Your task to perform on an android device: Open location settings Image 0: 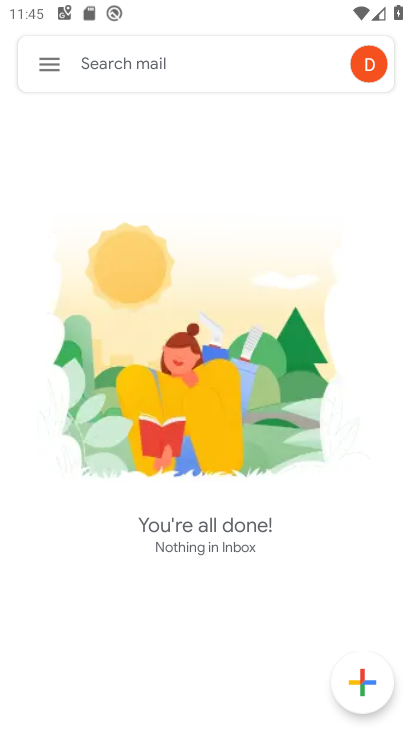
Step 0: press home button
Your task to perform on an android device: Open location settings Image 1: 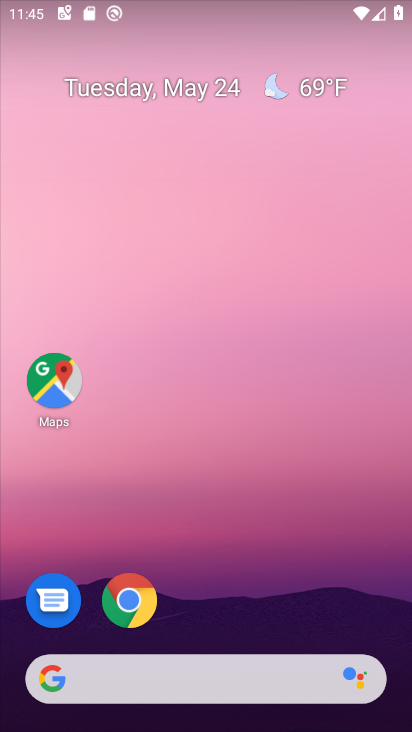
Step 1: drag from (370, 603) to (374, 220)
Your task to perform on an android device: Open location settings Image 2: 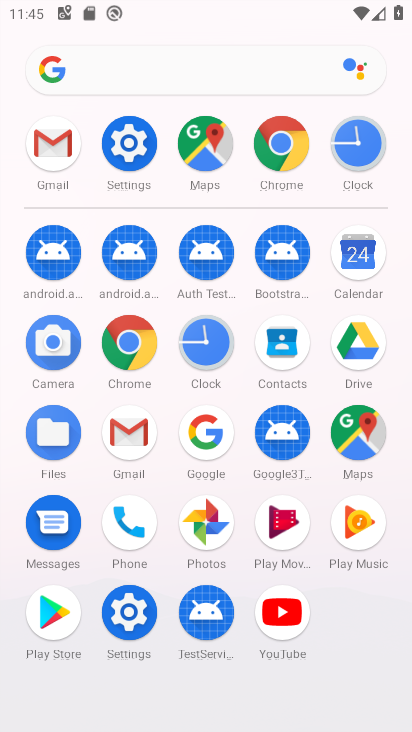
Step 2: click (134, 626)
Your task to perform on an android device: Open location settings Image 3: 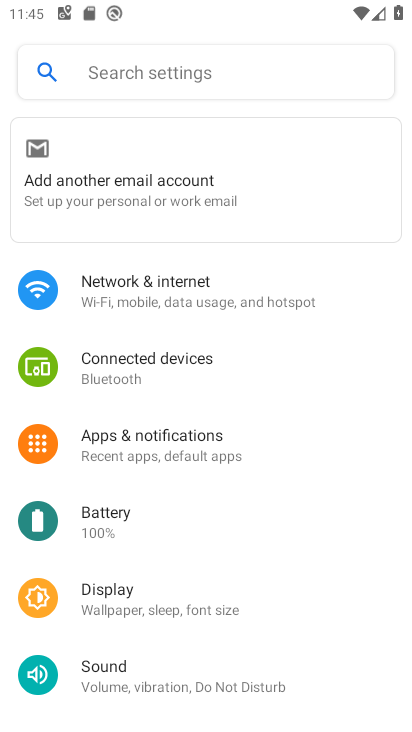
Step 3: drag from (335, 591) to (351, 475)
Your task to perform on an android device: Open location settings Image 4: 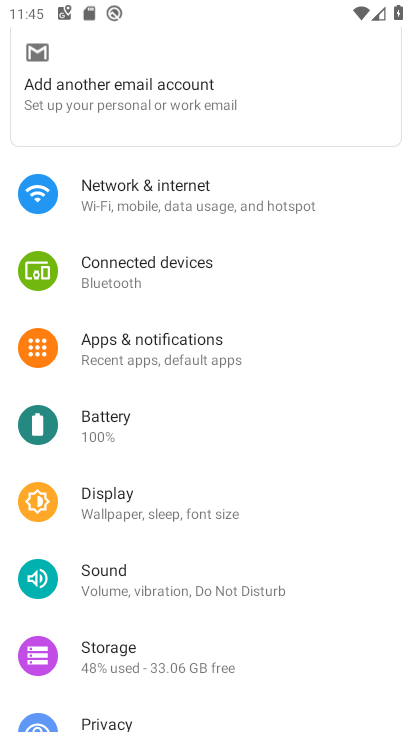
Step 4: drag from (332, 600) to (330, 509)
Your task to perform on an android device: Open location settings Image 5: 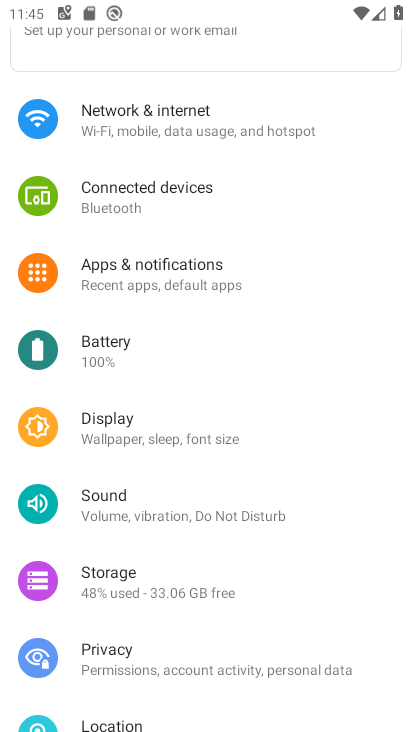
Step 5: drag from (348, 540) to (342, 489)
Your task to perform on an android device: Open location settings Image 6: 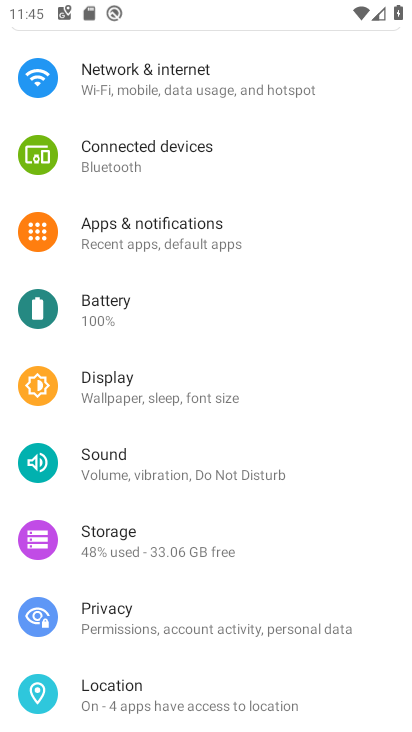
Step 6: drag from (338, 610) to (338, 511)
Your task to perform on an android device: Open location settings Image 7: 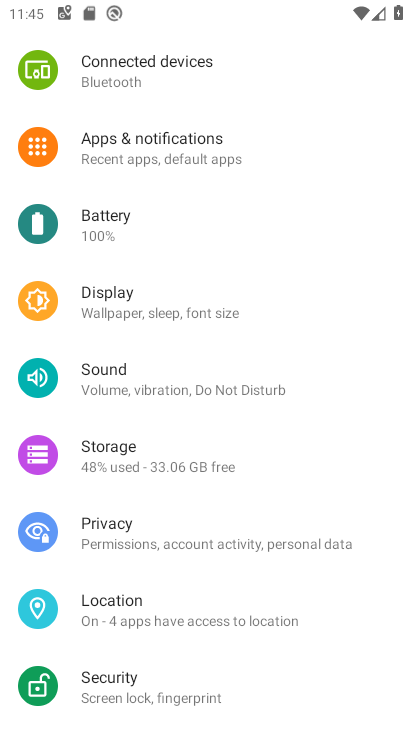
Step 7: drag from (366, 645) to (375, 496)
Your task to perform on an android device: Open location settings Image 8: 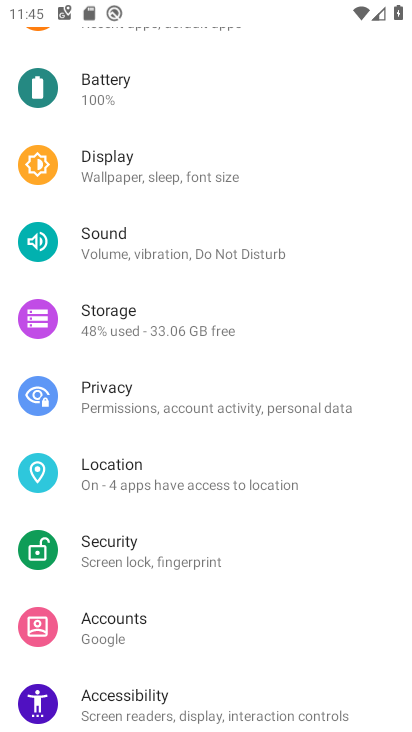
Step 8: drag from (354, 643) to (347, 507)
Your task to perform on an android device: Open location settings Image 9: 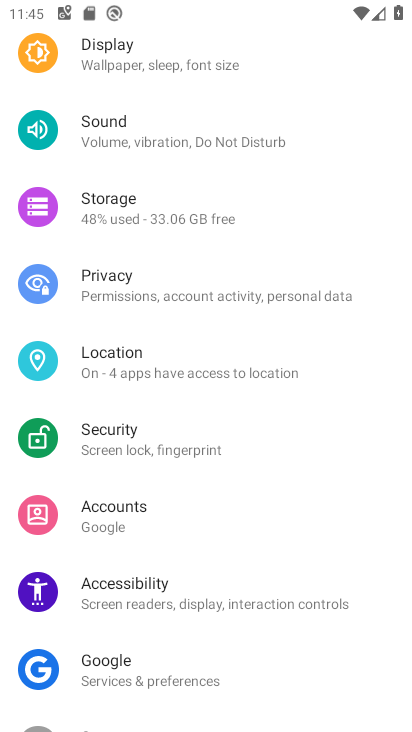
Step 9: drag from (341, 638) to (328, 507)
Your task to perform on an android device: Open location settings Image 10: 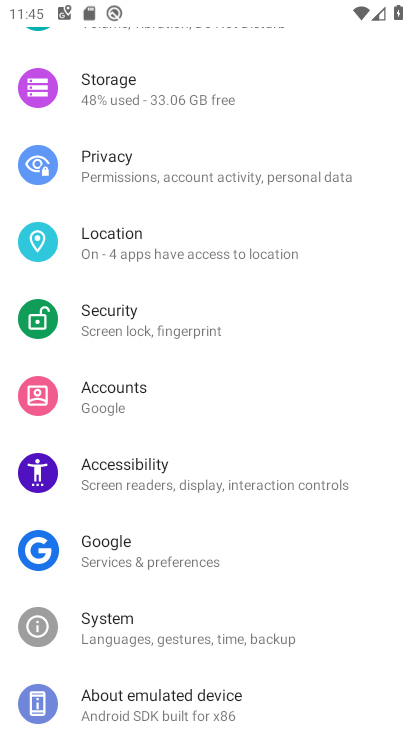
Step 10: click (295, 252)
Your task to perform on an android device: Open location settings Image 11: 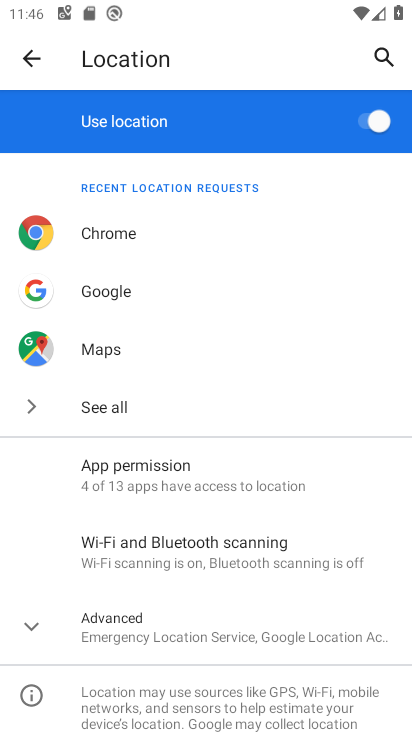
Step 11: task complete